Your task to perform on an android device: toggle translation in the chrome app Image 0: 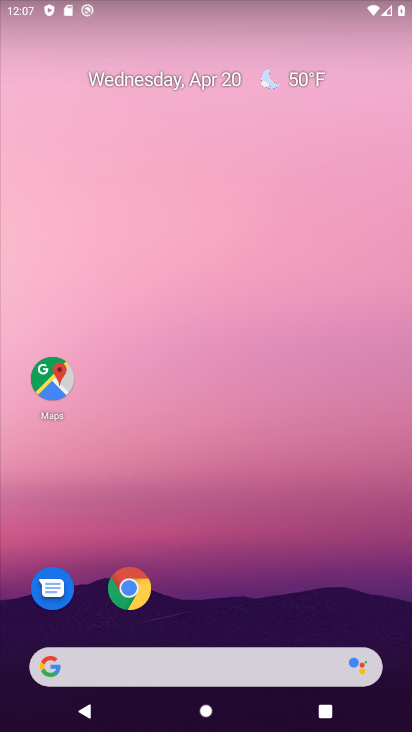
Step 0: click (126, 584)
Your task to perform on an android device: toggle translation in the chrome app Image 1: 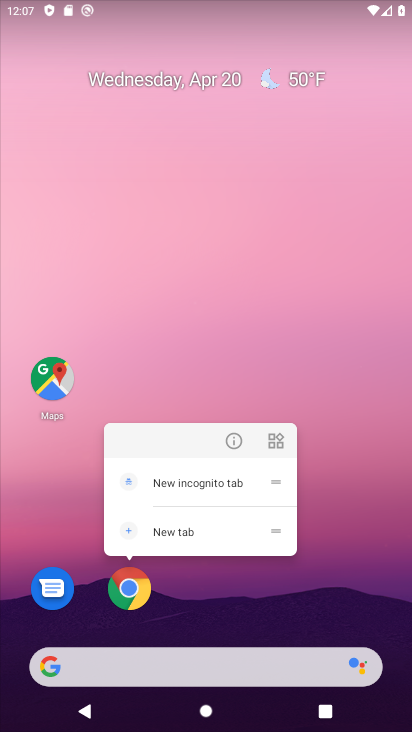
Step 1: click (128, 584)
Your task to perform on an android device: toggle translation in the chrome app Image 2: 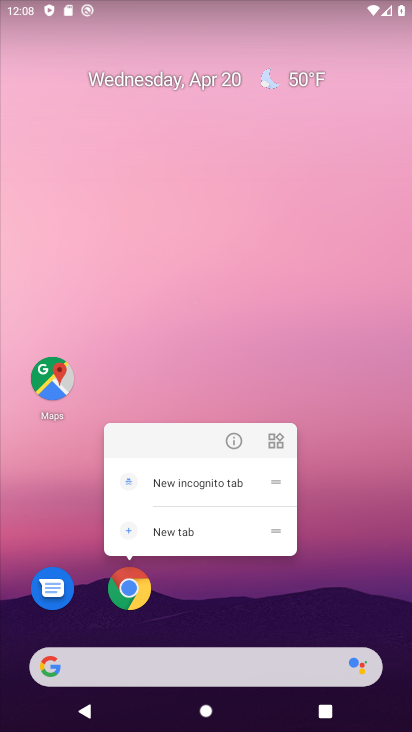
Step 2: click (134, 587)
Your task to perform on an android device: toggle translation in the chrome app Image 3: 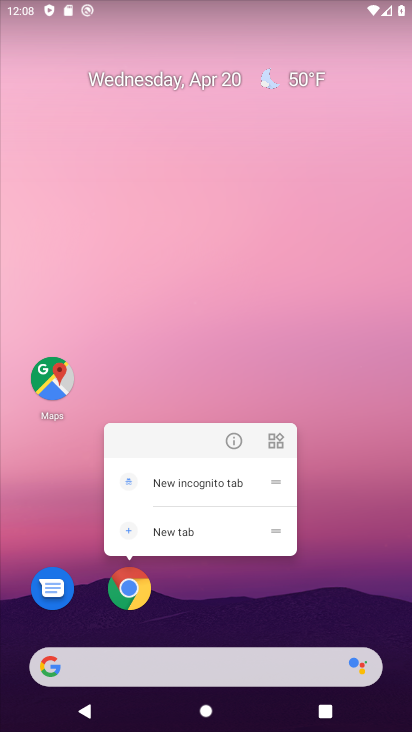
Step 3: click (131, 587)
Your task to perform on an android device: toggle translation in the chrome app Image 4: 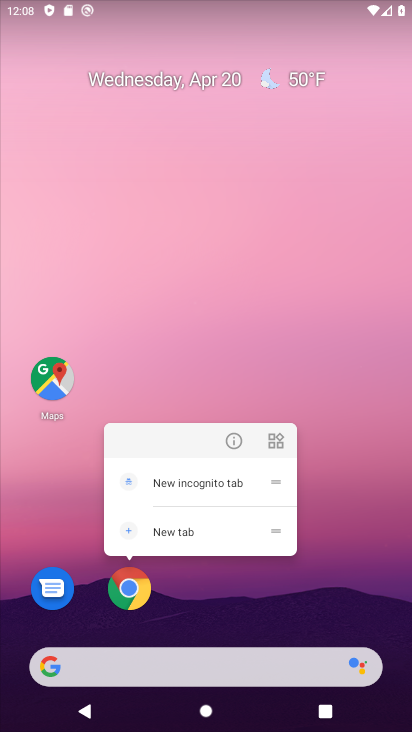
Step 4: click (130, 587)
Your task to perform on an android device: toggle translation in the chrome app Image 5: 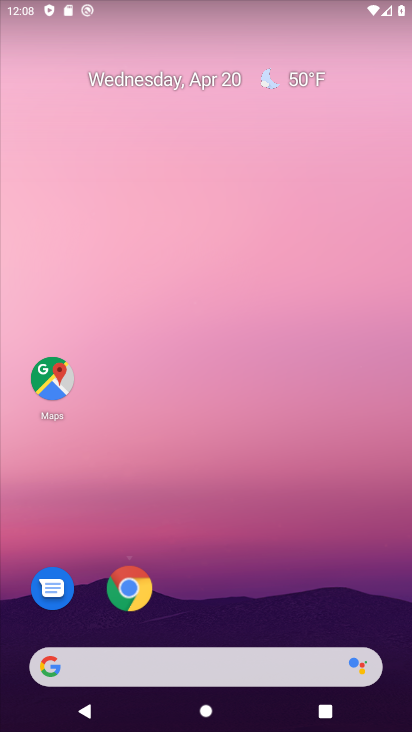
Step 5: click (196, 259)
Your task to perform on an android device: toggle translation in the chrome app Image 6: 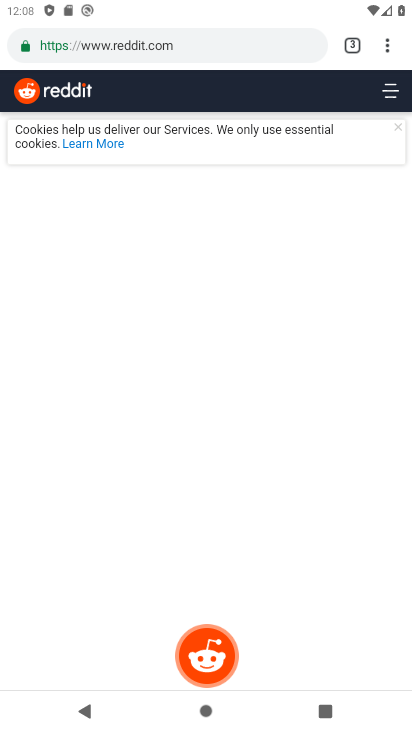
Step 6: click (385, 38)
Your task to perform on an android device: toggle translation in the chrome app Image 7: 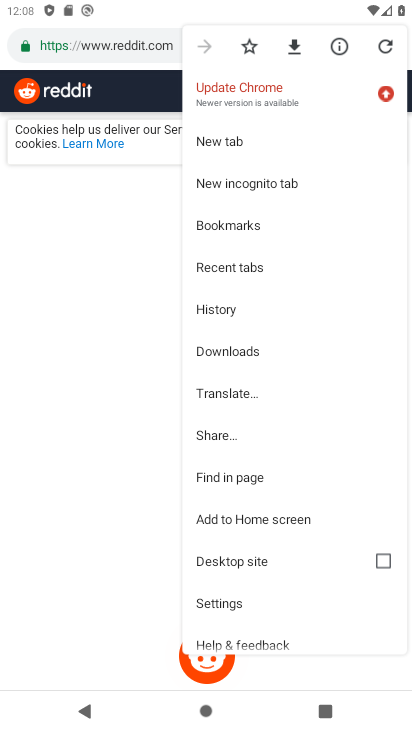
Step 7: click (246, 601)
Your task to perform on an android device: toggle translation in the chrome app Image 8: 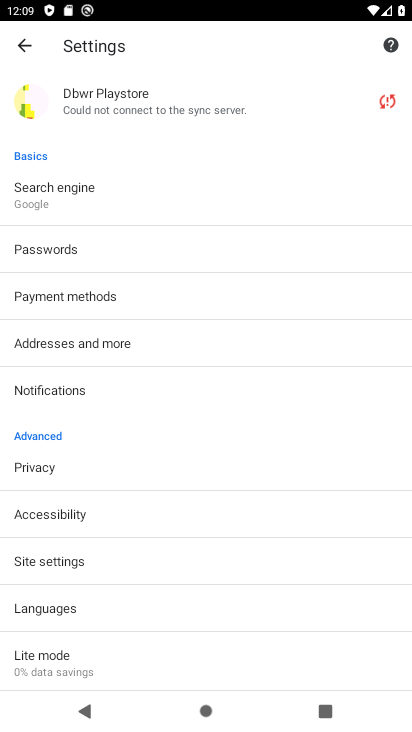
Step 8: click (93, 610)
Your task to perform on an android device: toggle translation in the chrome app Image 9: 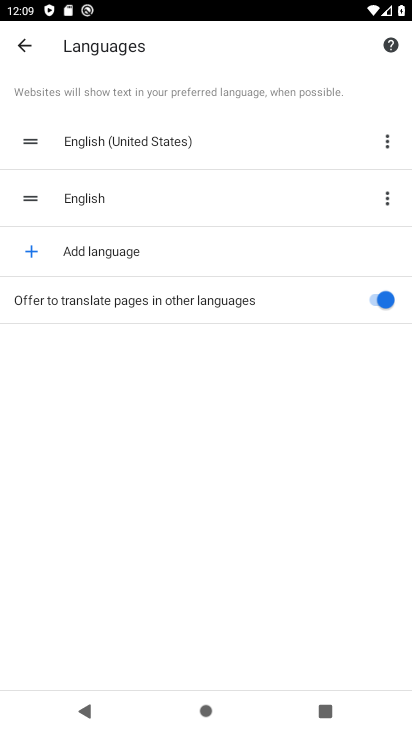
Step 9: click (379, 296)
Your task to perform on an android device: toggle translation in the chrome app Image 10: 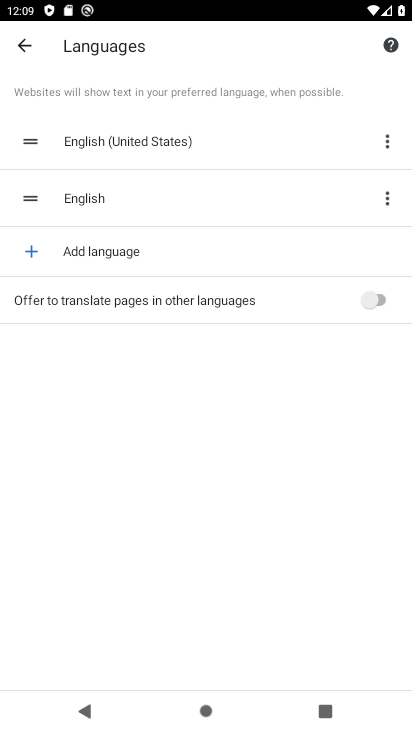
Step 10: task complete